Your task to perform on an android device: toggle sleep mode Image 0: 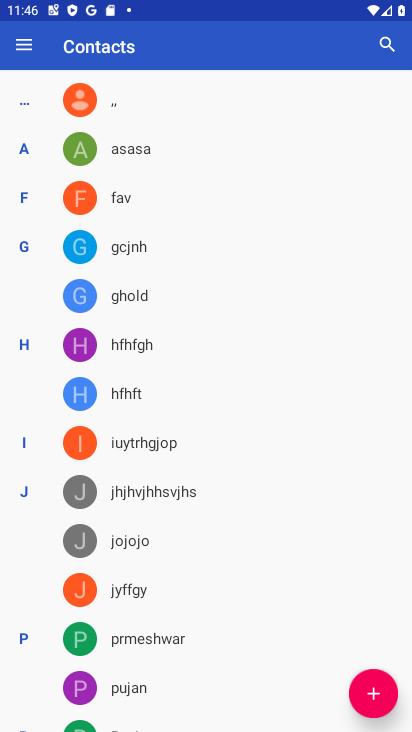
Step 0: press home button
Your task to perform on an android device: toggle sleep mode Image 1: 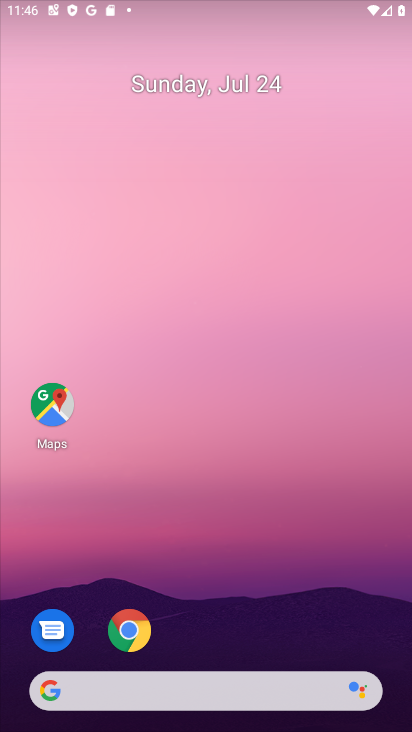
Step 1: drag from (259, 595) to (288, 81)
Your task to perform on an android device: toggle sleep mode Image 2: 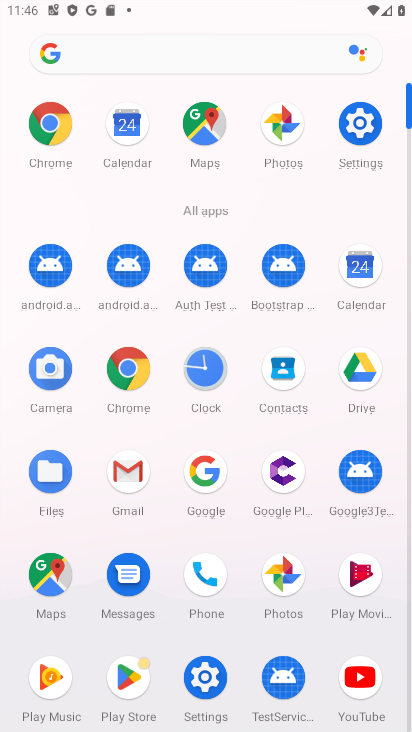
Step 2: click (217, 675)
Your task to perform on an android device: toggle sleep mode Image 3: 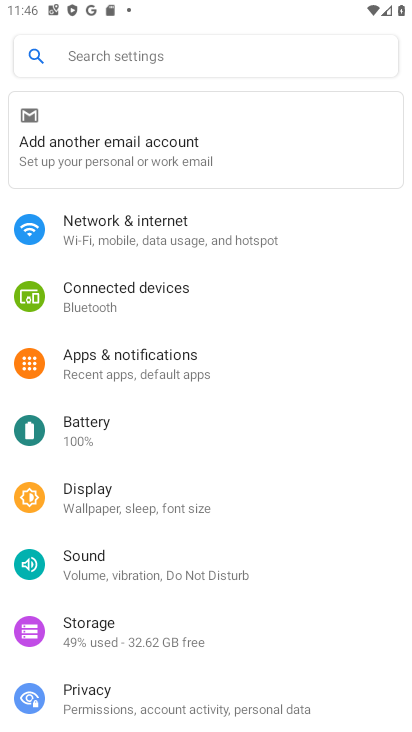
Step 3: click (106, 495)
Your task to perform on an android device: toggle sleep mode Image 4: 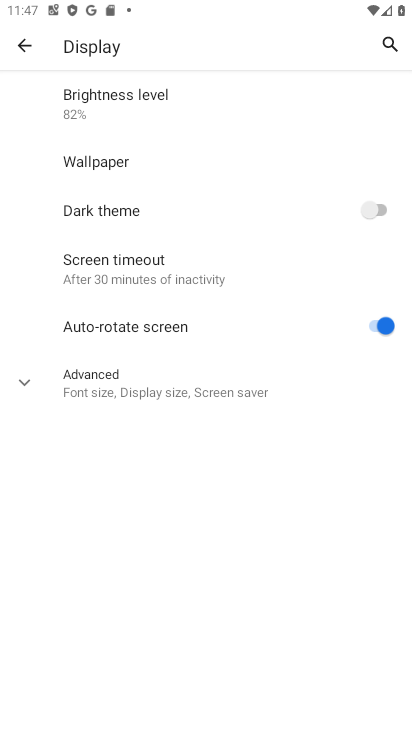
Step 4: click (127, 268)
Your task to perform on an android device: toggle sleep mode Image 5: 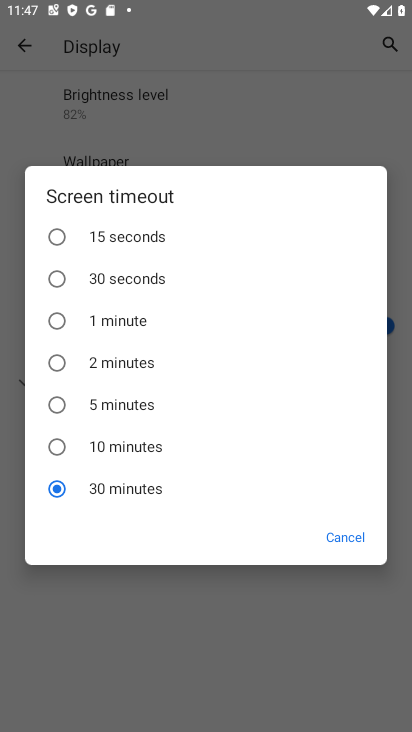
Step 5: click (100, 403)
Your task to perform on an android device: toggle sleep mode Image 6: 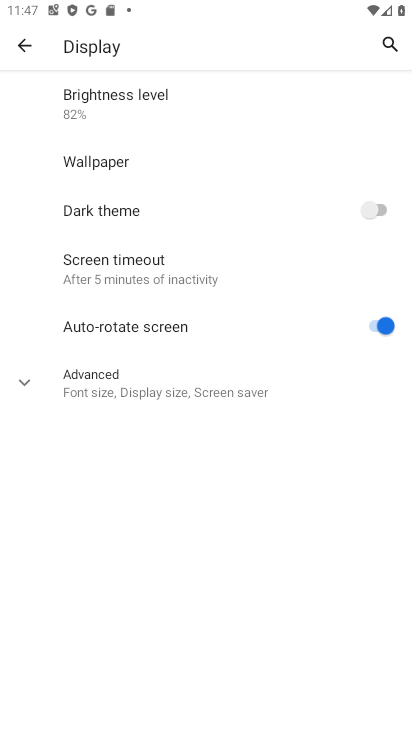
Step 6: click (34, 49)
Your task to perform on an android device: toggle sleep mode Image 7: 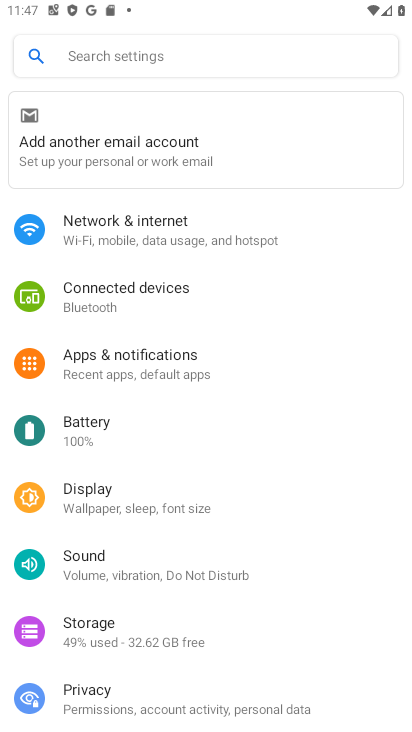
Step 7: task complete